Your task to perform on an android device: Open Google Image 0: 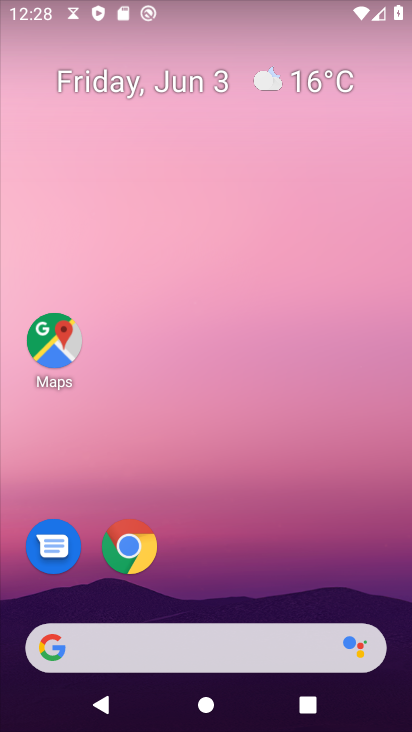
Step 0: drag from (212, 609) to (291, 80)
Your task to perform on an android device: Open Google Image 1: 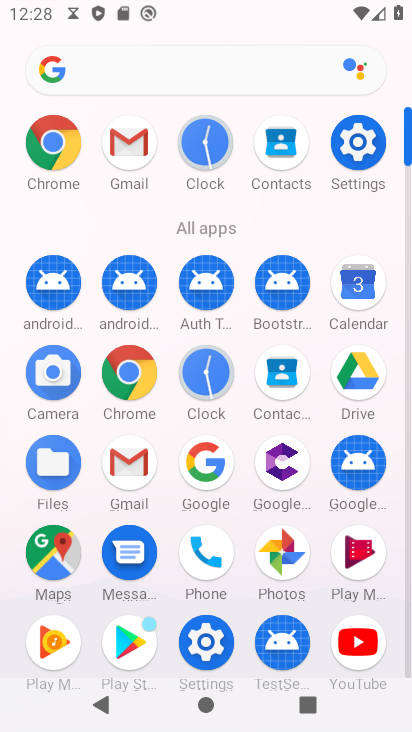
Step 1: click (221, 472)
Your task to perform on an android device: Open Google Image 2: 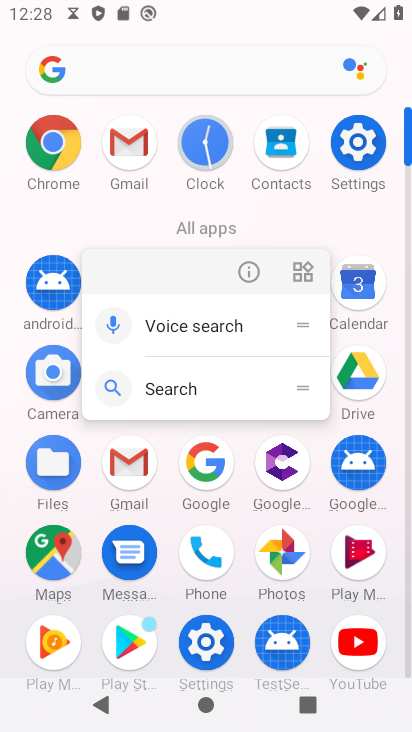
Step 2: click (201, 452)
Your task to perform on an android device: Open Google Image 3: 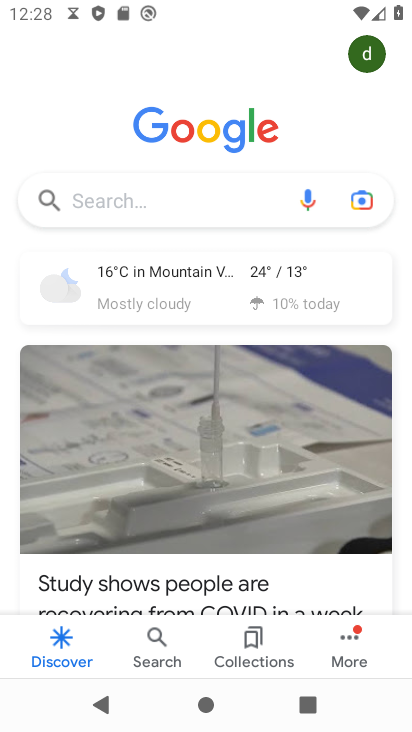
Step 3: task complete